Your task to perform on an android device: Open Youtube and go to "Your channel" Image 0: 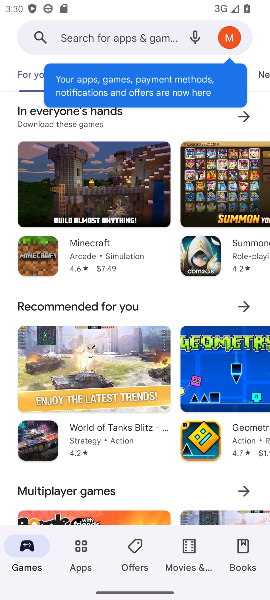
Step 0: press home button
Your task to perform on an android device: Open Youtube and go to "Your channel" Image 1: 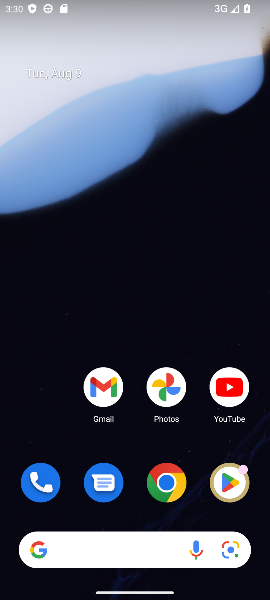
Step 1: click (217, 391)
Your task to perform on an android device: Open Youtube and go to "Your channel" Image 2: 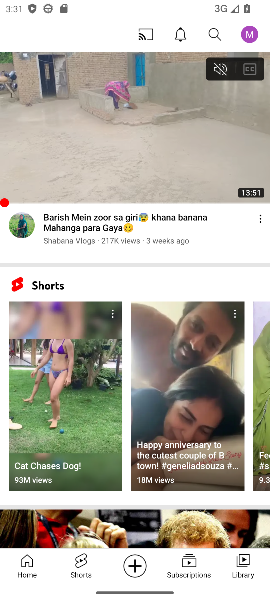
Step 2: click (242, 30)
Your task to perform on an android device: Open Youtube and go to "Your channel" Image 3: 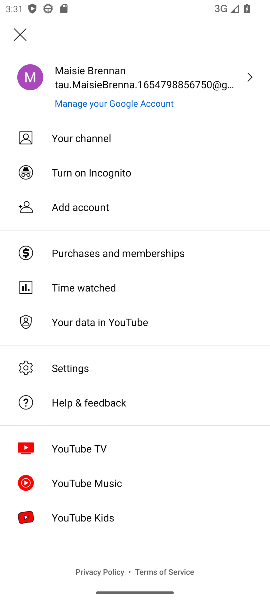
Step 3: click (37, 152)
Your task to perform on an android device: Open Youtube and go to "Your channel" Image 4: 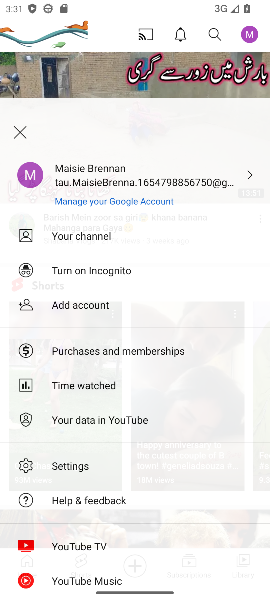
Step 4: click (47, 148)
Your task to perform on an android device: Open Youtube and go to "Your channel" Image 5: 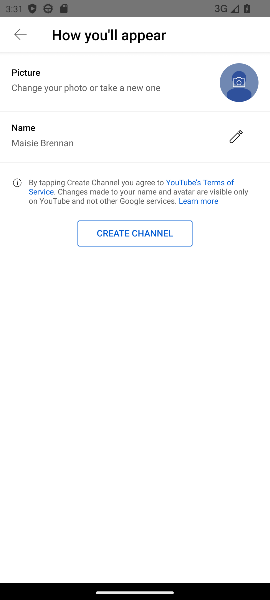
Step 5: click (16, 35)
Your task to perform on an android device: Open Youtube and go to "Your channel" Image 6: 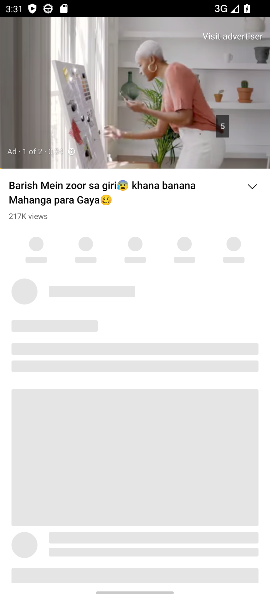
Step 6: task complete